Your task to perform on an android device: install app "Roku - Official Remote Control" Image 0: 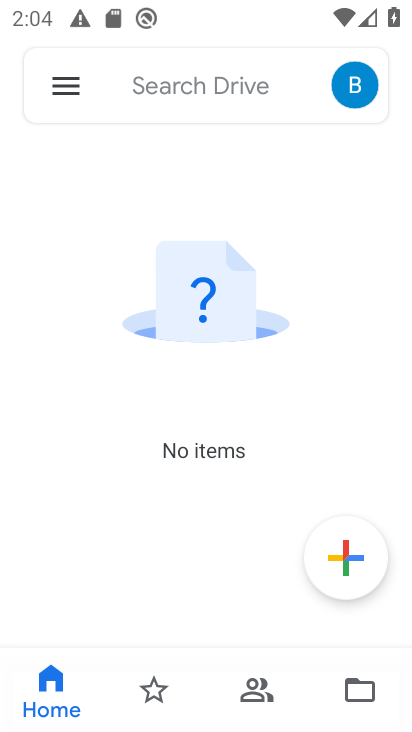
Step 0: press home button
Your task to perform on an android device: install app "Roku - Official Remote Control" Image 1: 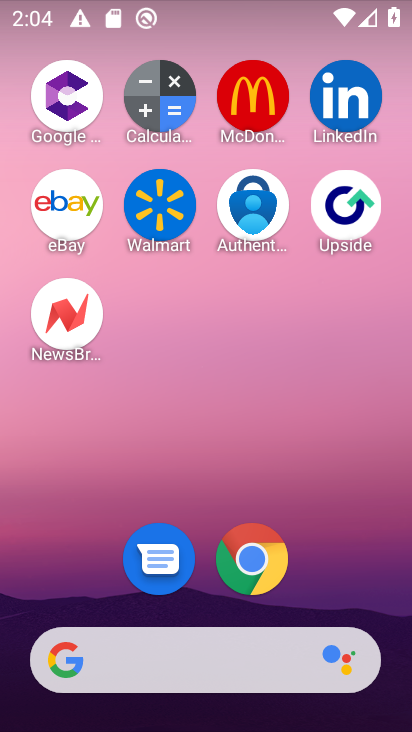
Step 1: drag from (199, 612) to (193, 5)
Your task to perform on an android device: install app "Roku - Official Remote Control" Image 2: 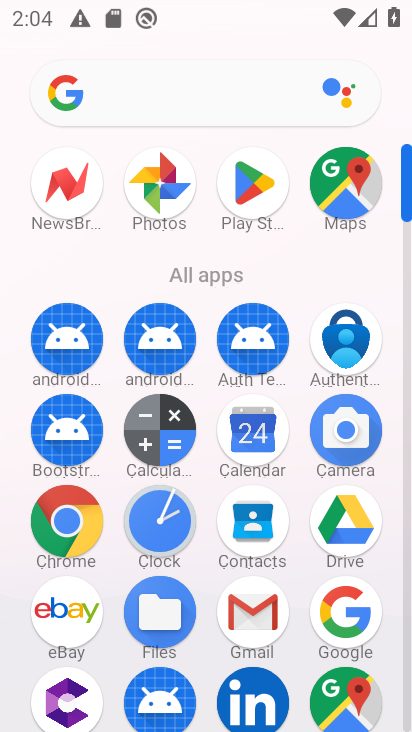
Step 2: click (258, 186)
Your task to perform on an android device: install app "Roku - Official Remote Control" Image 3: 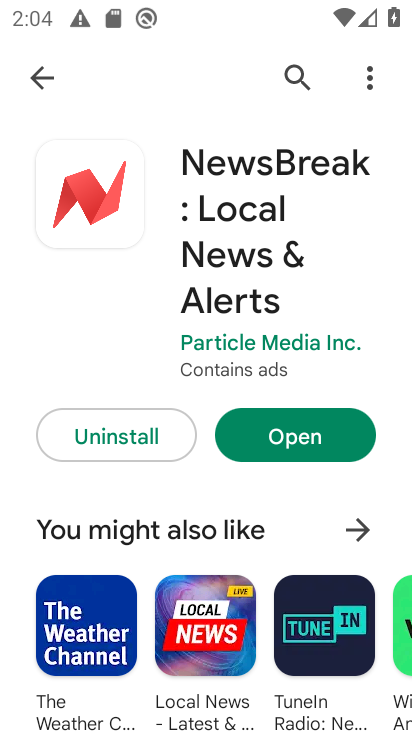
Step 3: click (288, 69)
Your task to perform on an android device: install app "Roku - Official Remote Control" Image 4: 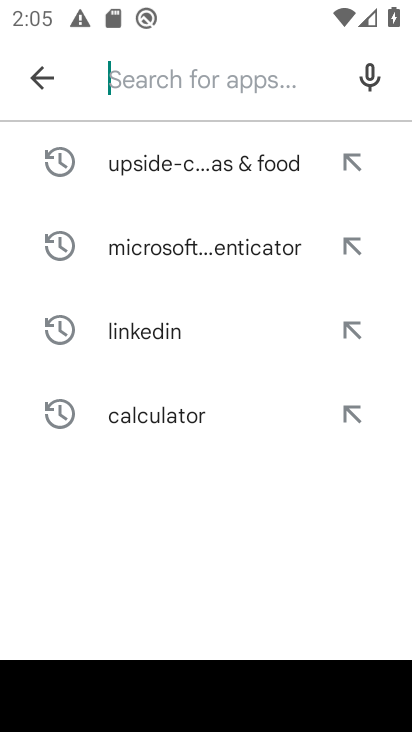
Step 4: type "Roku - Official Remote Contro"
Your task to perform on an android device: install app "Roku - Official Remote Control" Image 5: 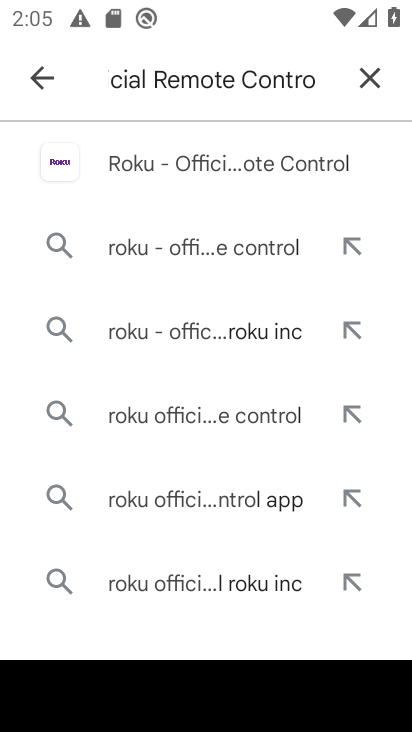
Step 5: click (145, 165)
Your task to perform on an android device: install app "Roku - Official Remote Control" Image 6: 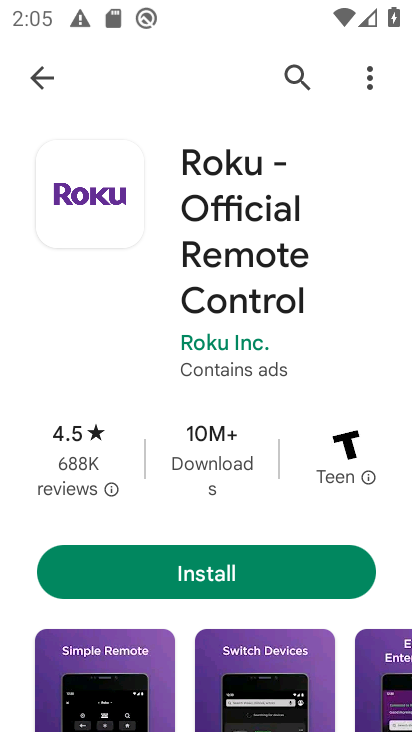
Step 6: click (212, 577)
Your task to perform on an android device: install app "Roku - Official Remote Control" Image 7: 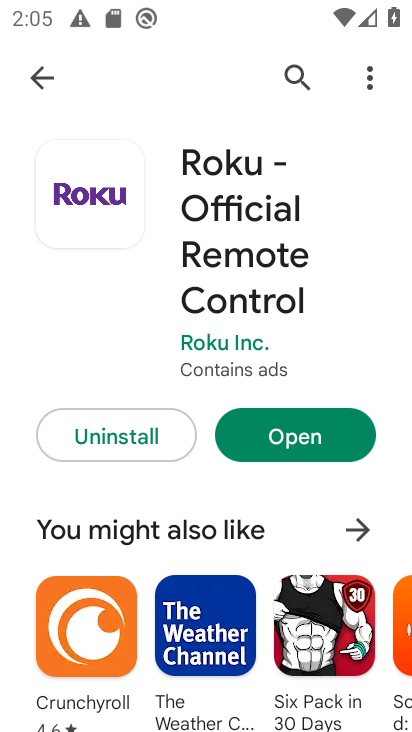
Step 7: click (308, 448)
Your task to perform on an android device: install app "Roku - Official Remote Control" Image 8: 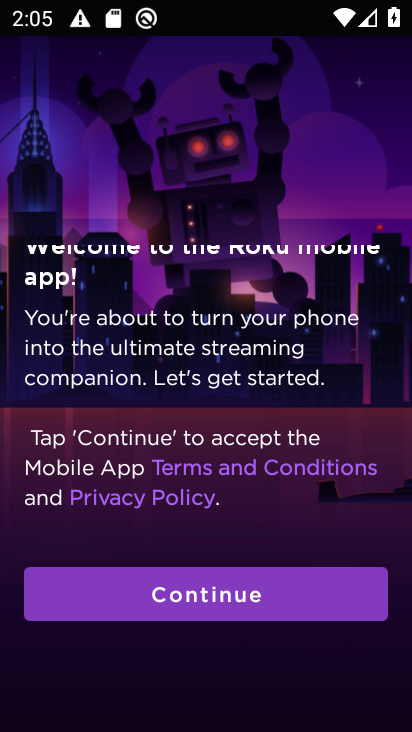
Step 8: task complete